Your task to perform on an android device: Set the phone to "Do not disturb". Image 0: 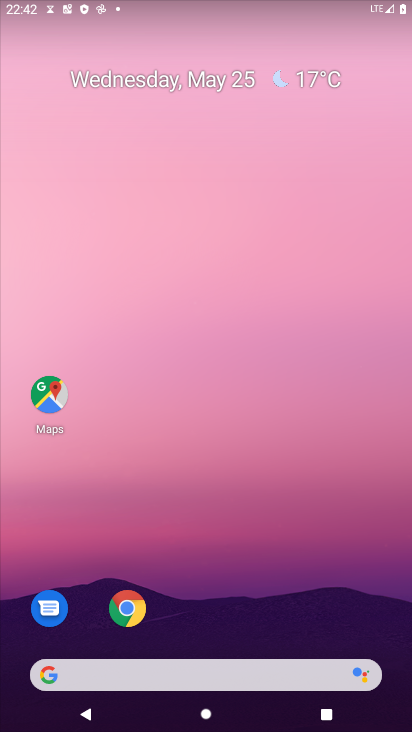
Step 0: drag from (299, 575) to (213, 32)
Your task to perform on an android device: Set the phone to "Do not disturb". Image 1: 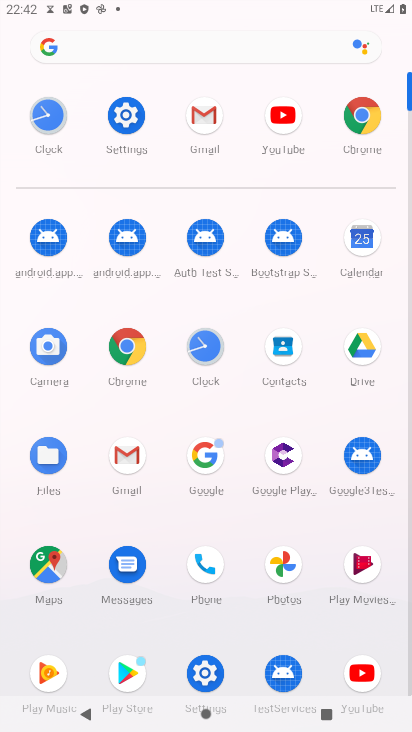
Step 1: click (123, 121)
Your task to perform on an android device: Set the phone to "Do not disturb". Image 2: 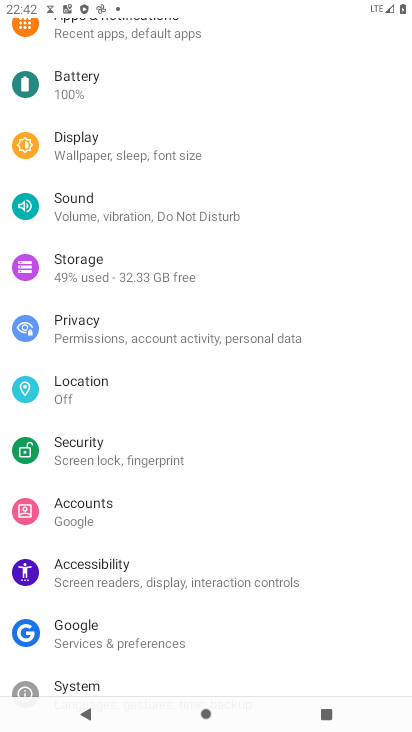
Step 2: click (121, 217)
Your task to perform on an android device: Set the phone to "Do not disturb". Image 3: 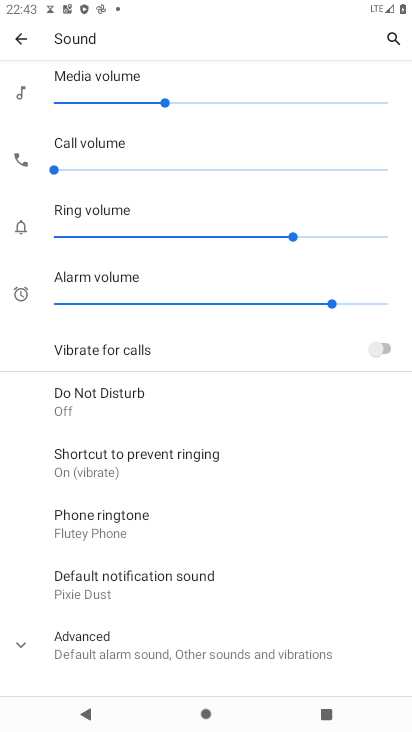
Step 3: drag from (170, 614) to (149, 297)
Your task to perform on an android device: Set the phone to "Do not disturb". Image 4: 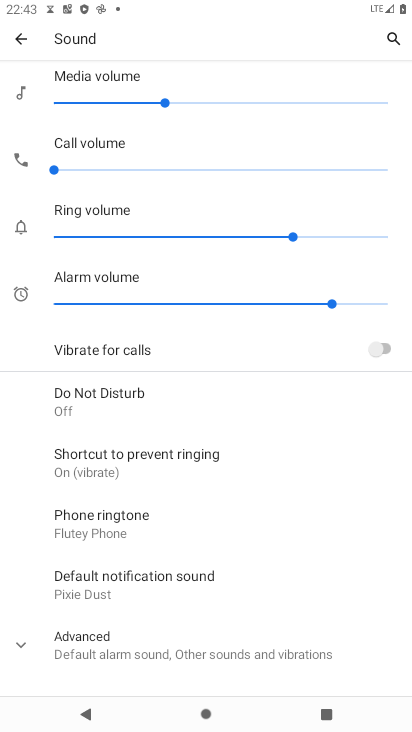
Step 4: click (141, 401)
Your task to perform on an android device: Set the phone to "Do not disturb". Image 5: 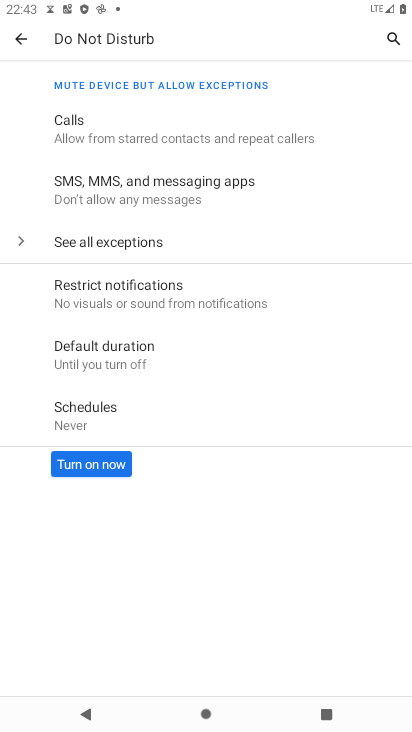
Step 5: click (101, 464)
Your task to perform on an android device: Set the phone to "Do not disturb". Image 6: 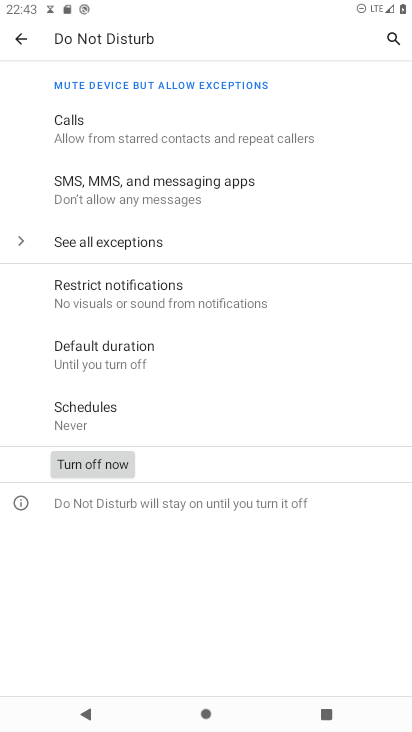
Step 6: task complete